Your task to perform on an android device: Open Wikipedia Image 0: 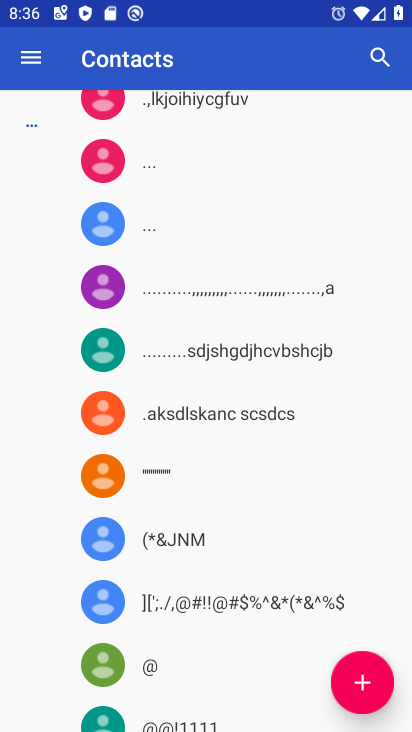
Step 0: drag from (283, 630) to (302, 196)
Your task to perform on an android device: Open Wikipedia Image 1: 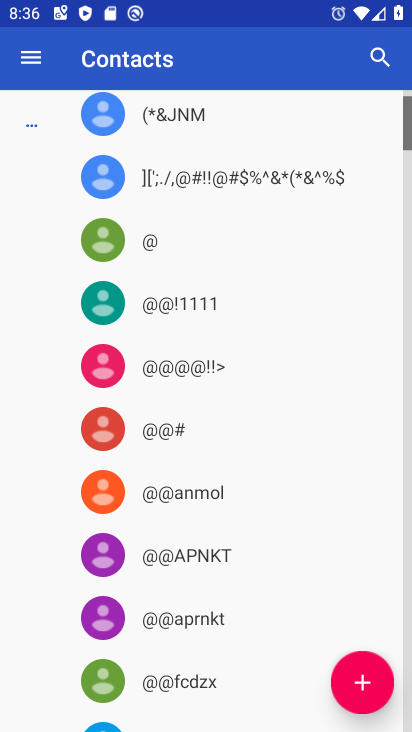
Step 1: press home button
Your task to perform on an android device: Open Wikipedia Image 2: 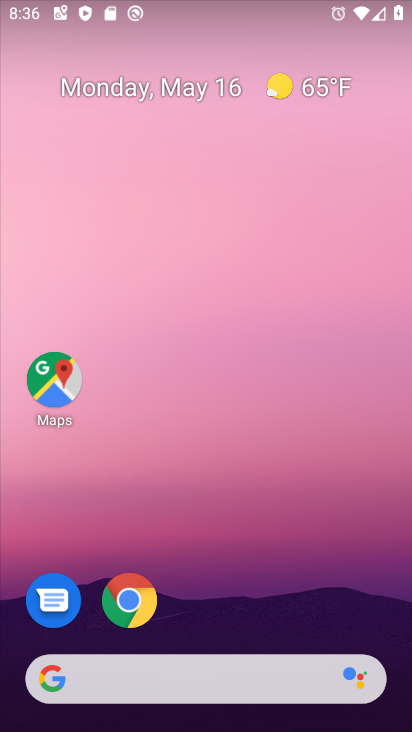
Step 2: drag from (255, 541) to (279, 96)
Your task to perform on an android device: Open Wikipedia Image 3: 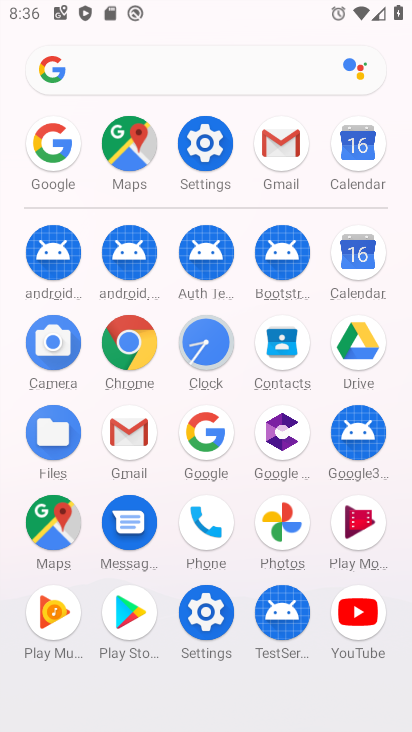
Step 3: drag from (235, 650) to (258, 279)
Your task to perform on an android device: Open Wikipedia Image 4: 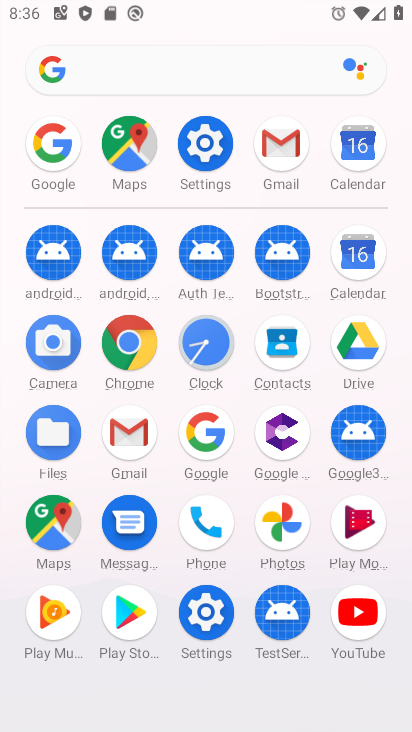
Step 4: click (133, 335)
Your task to perform on an android device: Open Wikipedia Image 5: 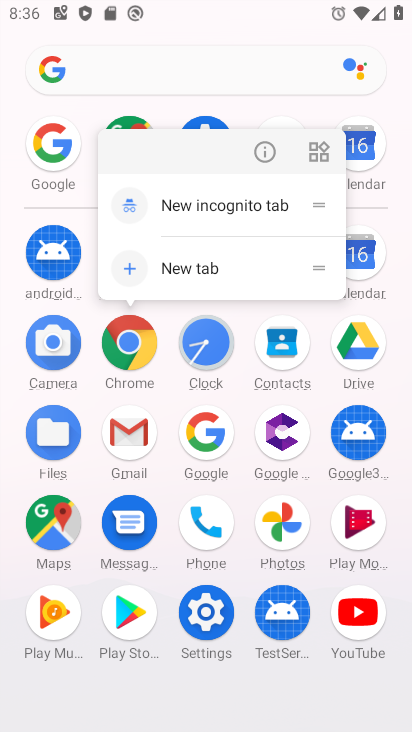
Step 5: click (267, 167)
Your task to perform on an android device: Open Wikipedia Image 6: 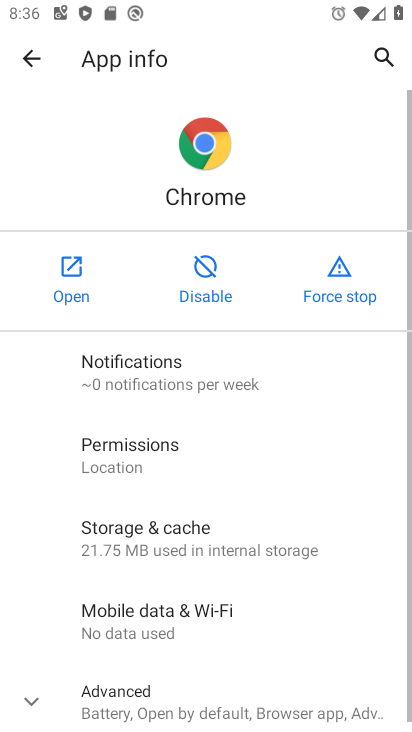
Step 6: click (70, 294)
Your task to perform on an android device: Open Wikipedia Image 7: 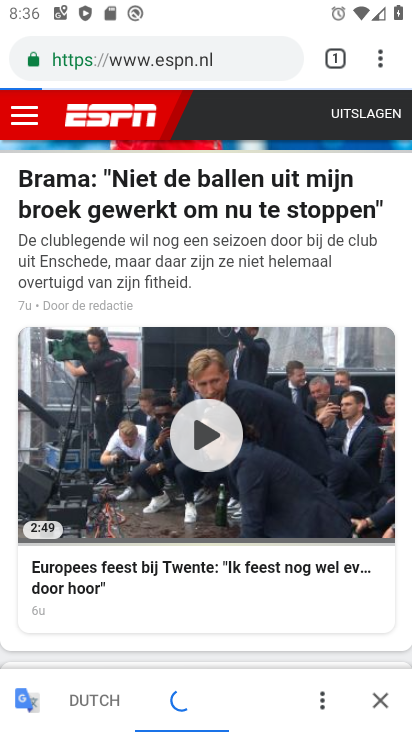
Step 7: click (196, 68)
Your task to perform on an android device: Open Wikipedia Image 8: 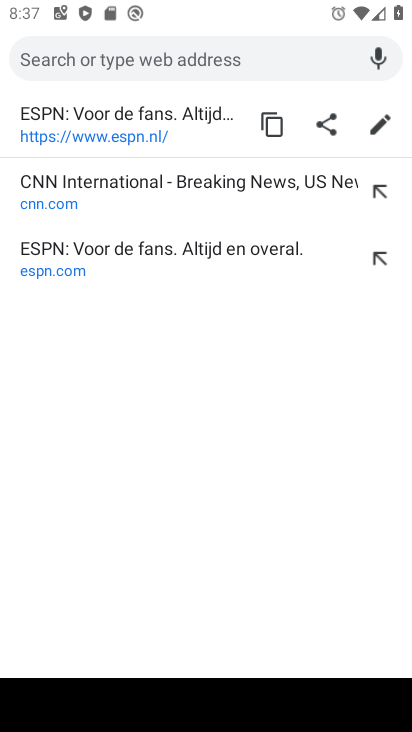
Step 8: type "wikipedia"
Your task to perform on an android device: Open Wikipedia Image 9: 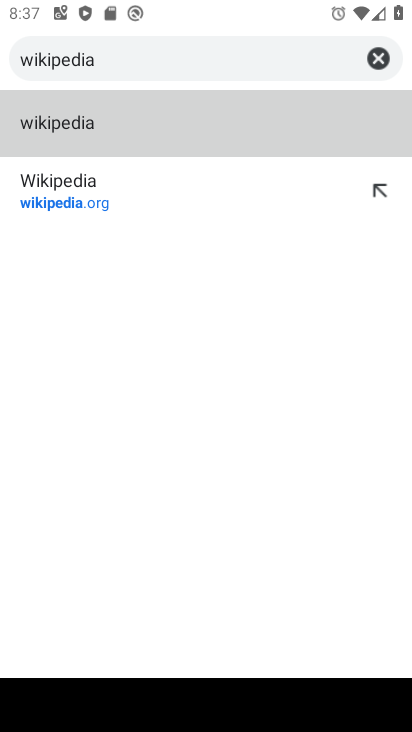
Step 9: click (53, 205)
Your task to perform on an android device: Open Wikipedia Image 10: 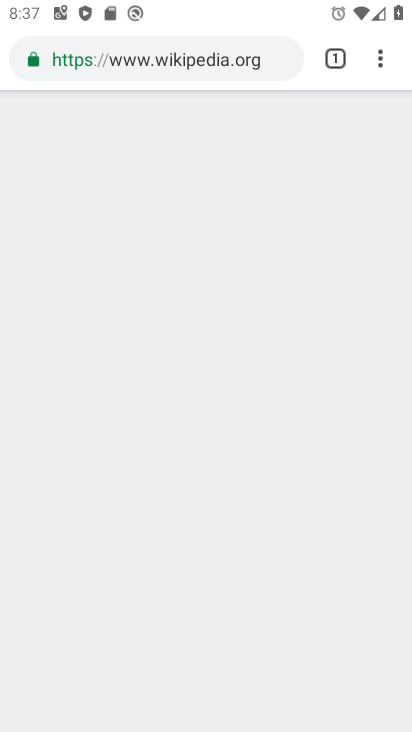
Step 10: task complete